Your task to perform on an android device: Google the capital of Bolivia Image 0: 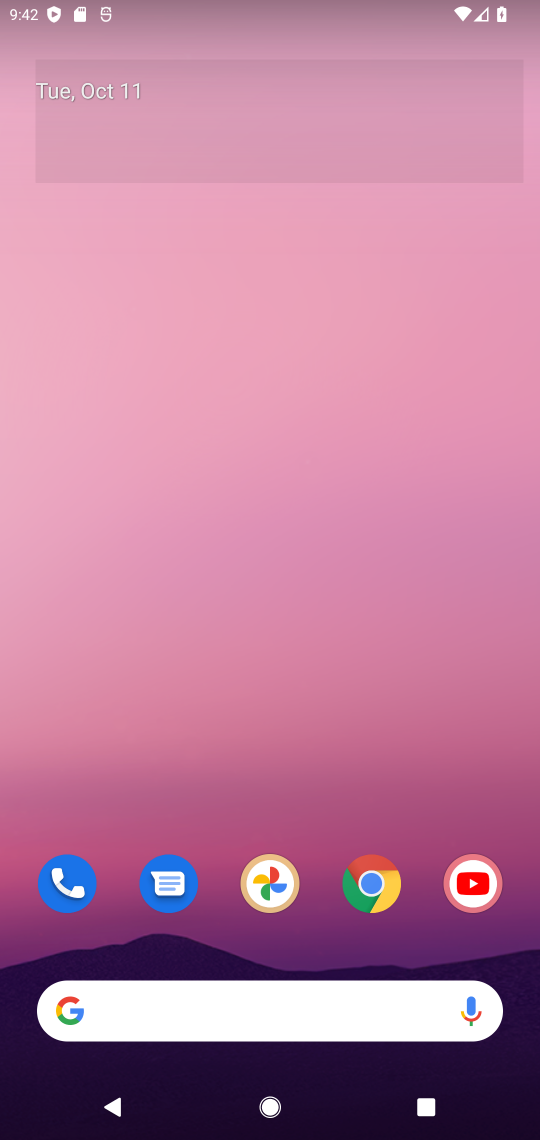
Step 0: click (74, 1013)
Your task to perform on an android device: Google the capital of Bolivia Image 1: 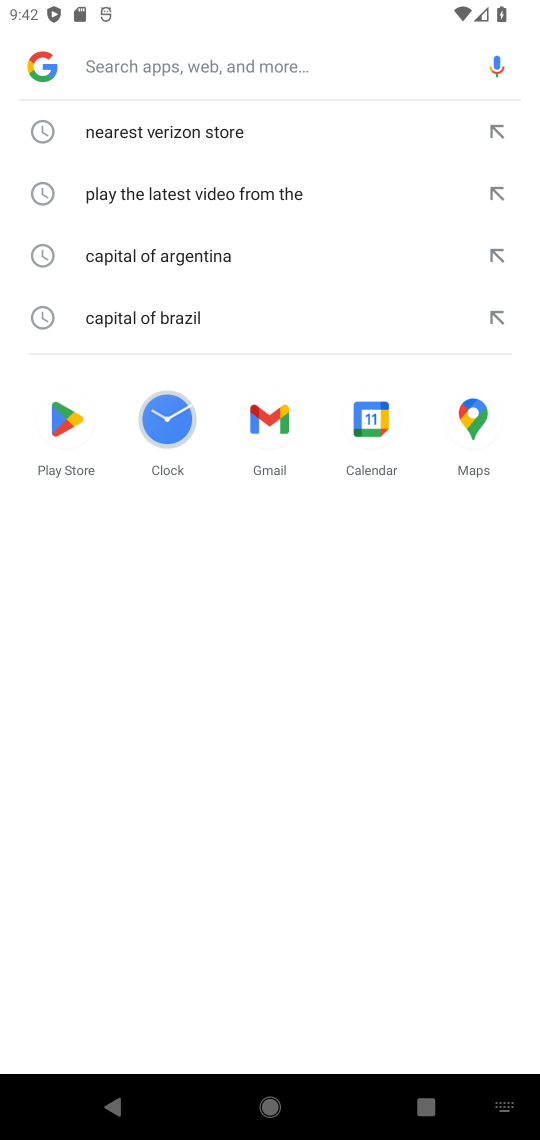
Step 1: click (251, 61)
Your task to perform on an android device: Google the capital of Bolivia Image 2: 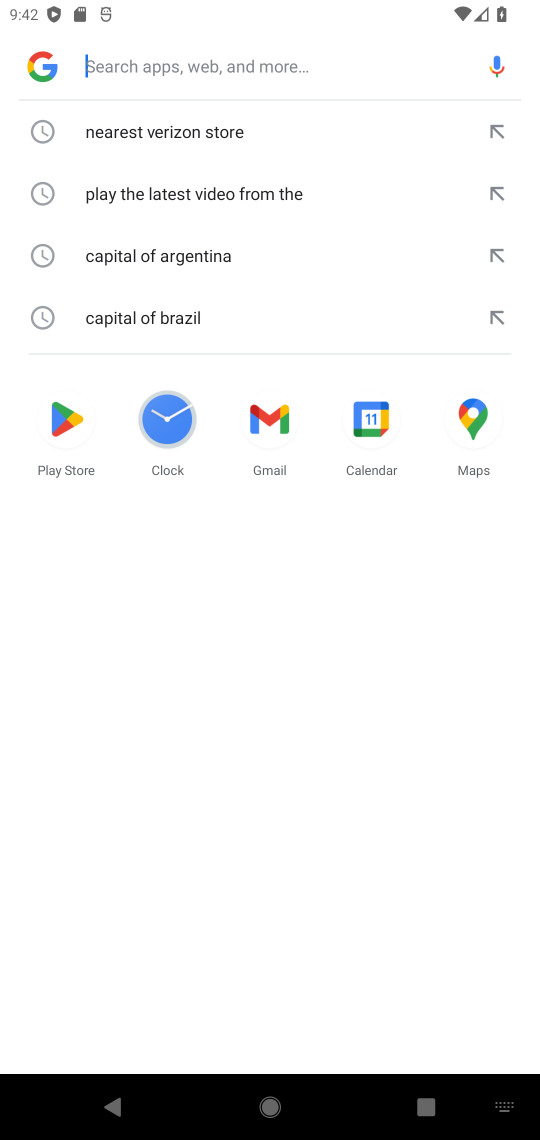
Step 2: type "Google the capital of Bolivia"
Your task to perform on an android device: Google the capital of Bolivia Image 3: 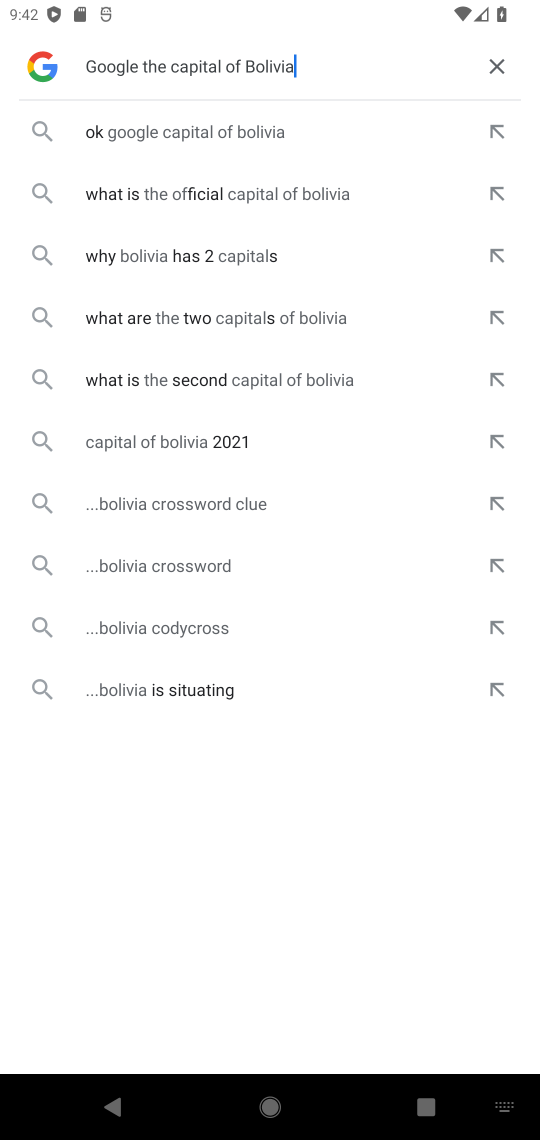
Step 3: click (227, 131)
Your task to perform on an android device: Google the capital of Bolivia Image 4: 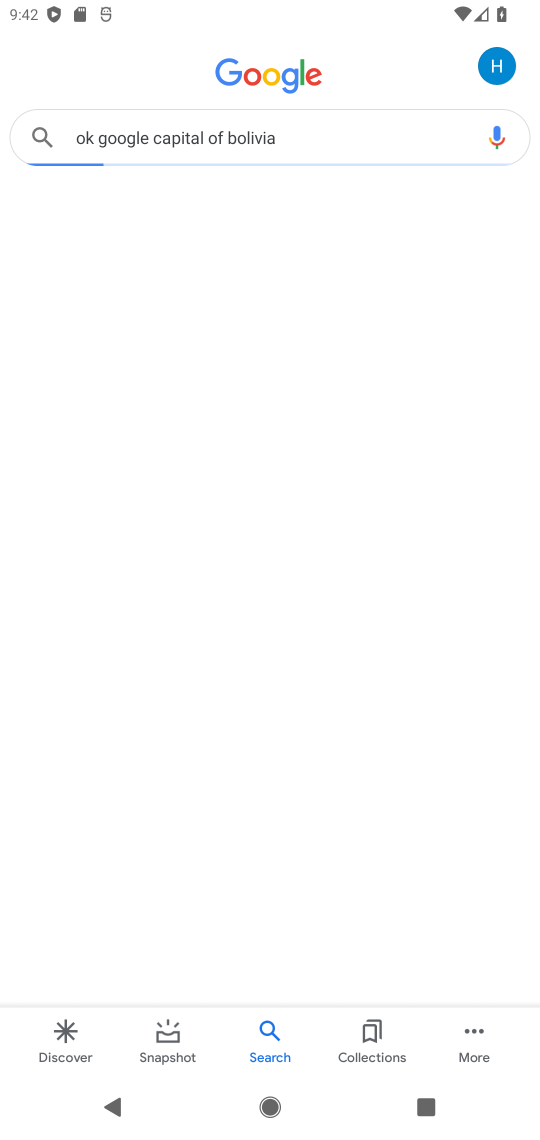
Step 4: task complete